Your task to perform on an android device: Go to CNN.com Image 0: 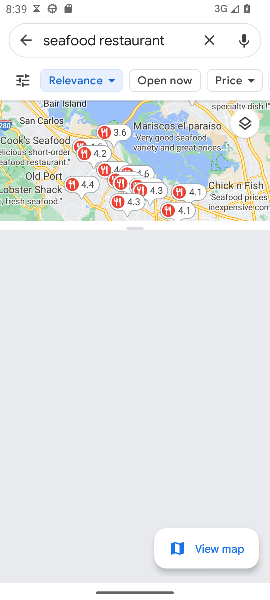
Step 0: press home button
Your task to perform on an android device: Go to CNN.com Image 1: 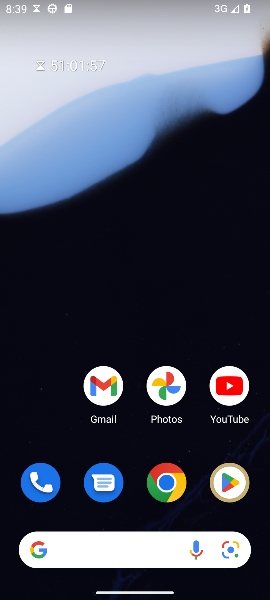
Step 1: drag from (186, 492) to (0, 129)
Your task to perform on an android device: Go to CNN.com Image 2: 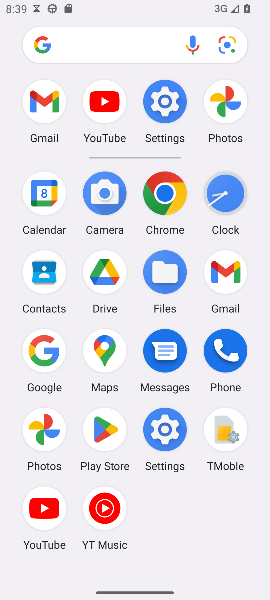
Step 2: click (158, 203)
Your task to perform on an android device: Go to CNN.com Image 3: 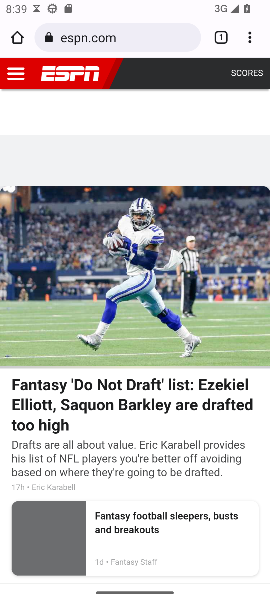
Step 3: click (140, 44)
Your task to perform on an android device: Go to CNN.com Image 4: 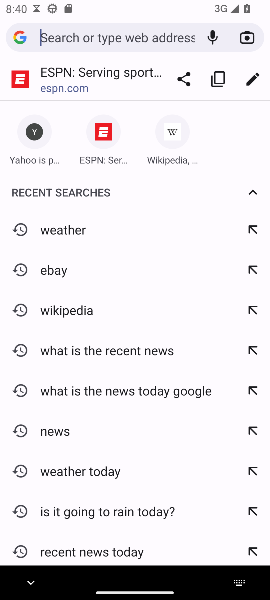
Step 4: type ""
Your task to perform on an android device: Go to CNN.com Image 5: 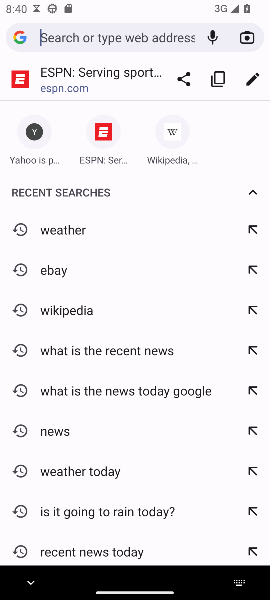
Step 5: type " CNN.com"
Your task to perform on an android device: Go to CNN.com Image 6: 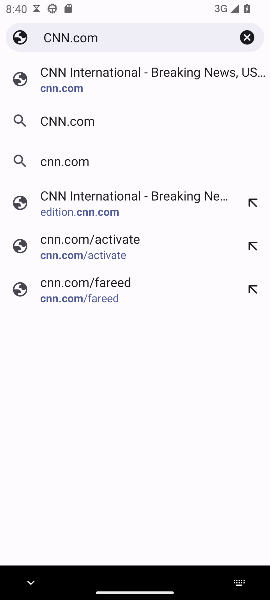
Step 6: click (85, 72)
Your task to perform on an android device: Go to CNN.com Image 7: 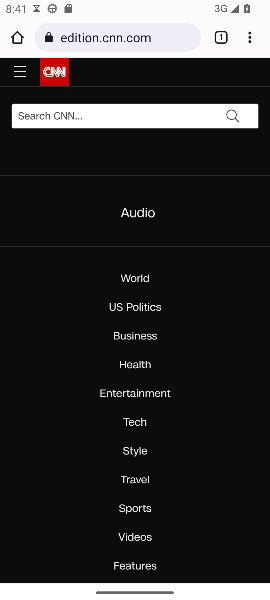
Step 7: task complete